Your task to perform on an android device: Do I have any events this weekend? Image 0: 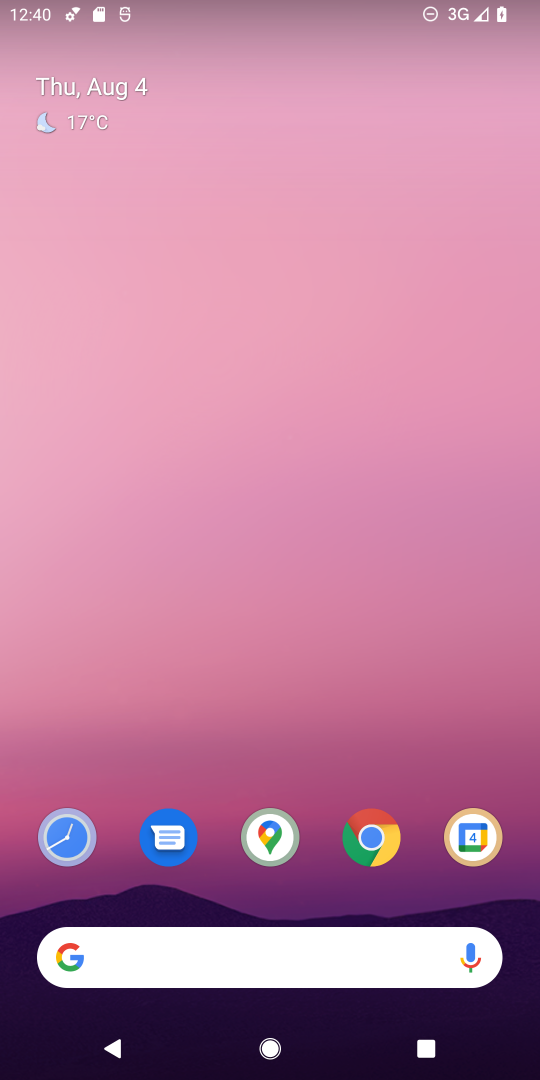
Step 0: drag from (451, 818) to (296, 99)
Your task to perform on an android device: Do I have any events this weekend? Image 1: 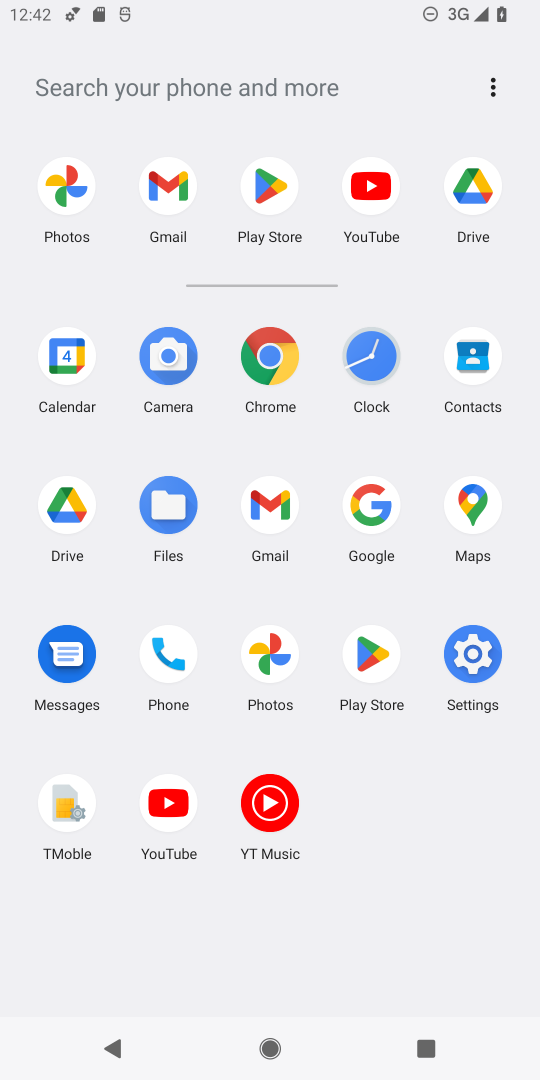
Step 1: click (73, 353)
Your task to perform on an android device: Do I have any events this weekend? Image 2: 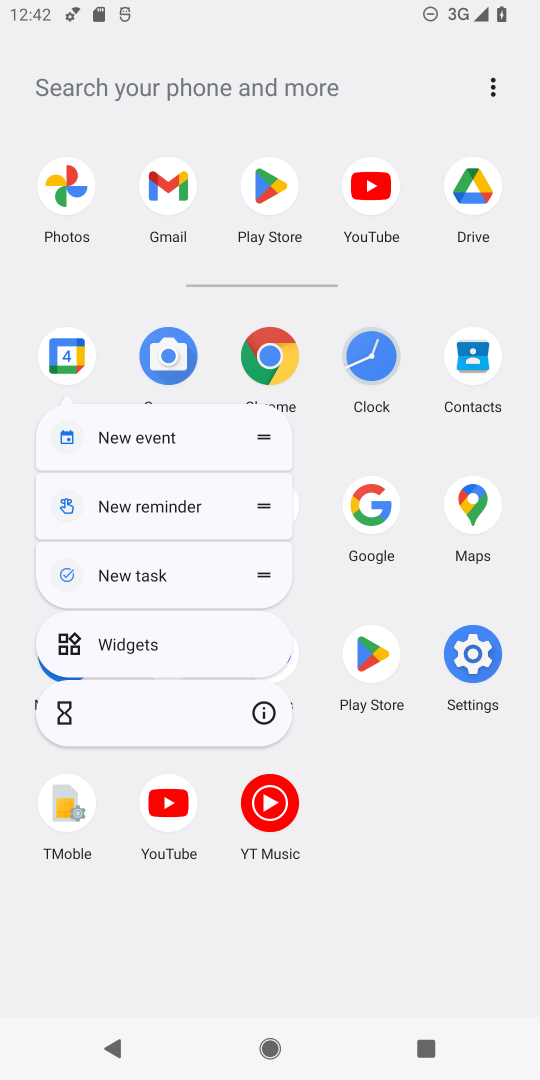
Step 2: click (73, 353)
Your task to perform on an android device: Do I have any events this weekend? Image 3: 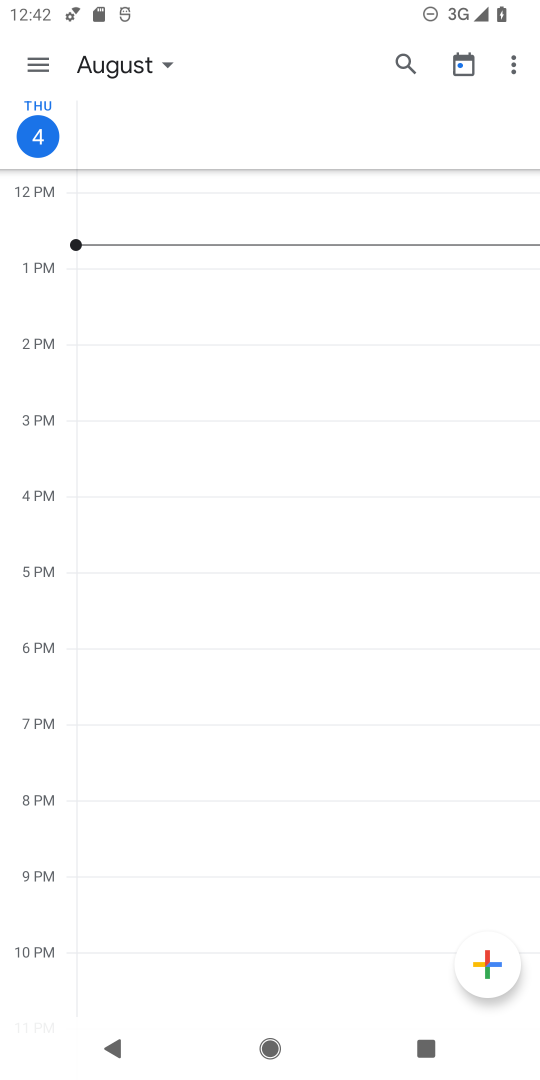
Step 3: task complete